Your task to perform on an android device: Open my contact list Image 0: 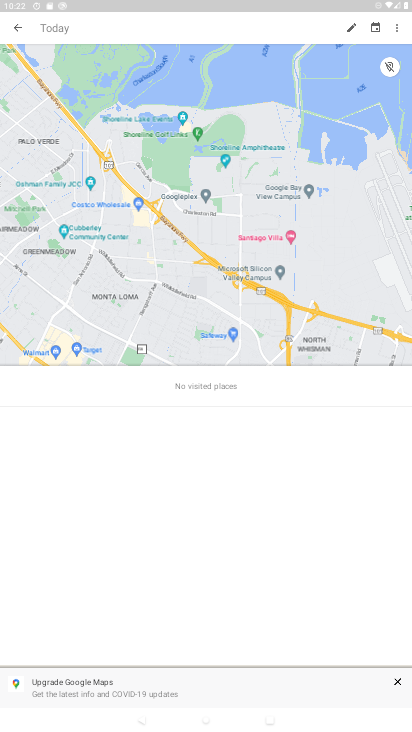
Step 0: press home button
Your task to perform on an android device: Open my contact list Image 1: 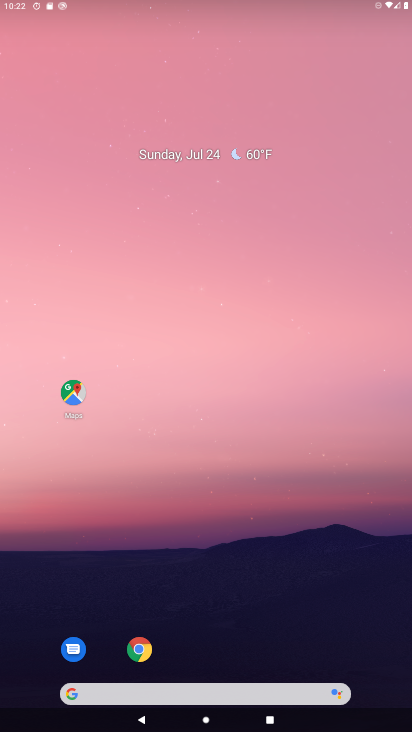
Step 1: drag from (270, 474) to (230, 39)
Your task to perform on an android device: Open my contact list Image 2: 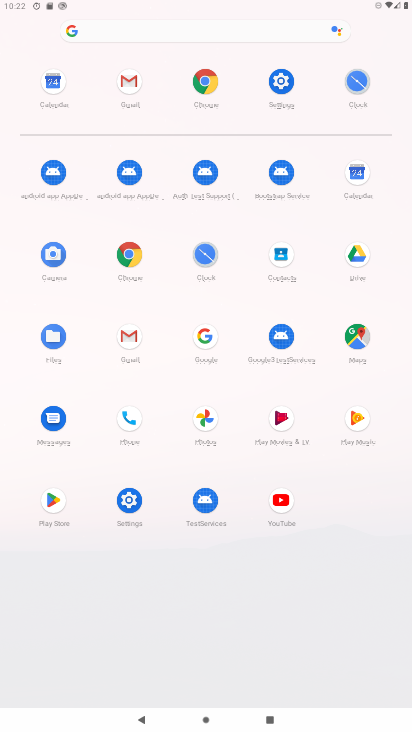
Step 2: click (279, 259)
Your task to perform on an android device: Open my contact list Image 3: 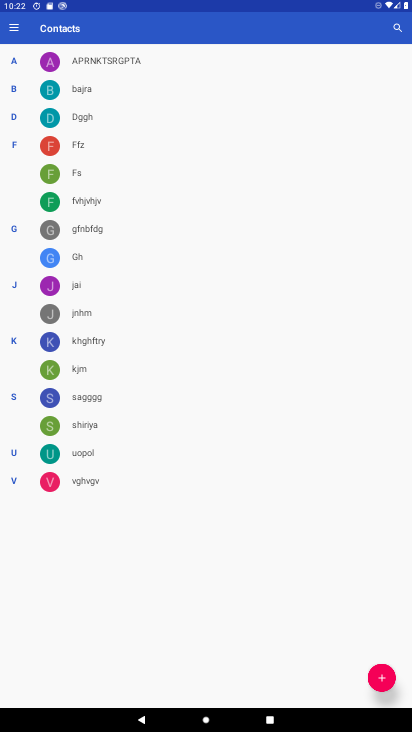
Step 3: task complete